Your task to perform on an android device: toggle sleep mode Image 0: 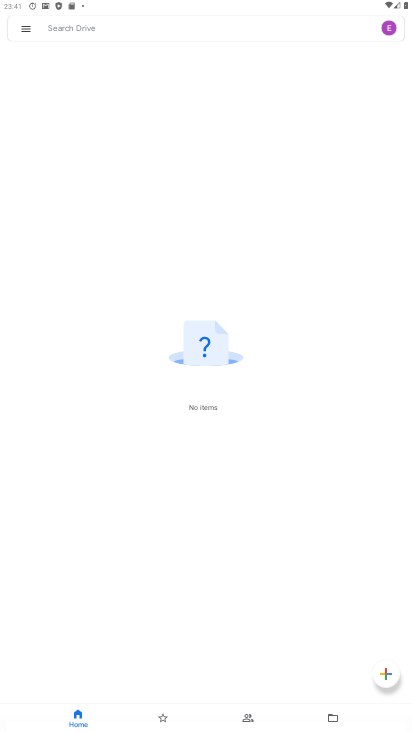
Step 0: press home button
Your task to perform on an android device: toggle sleep mode Image 1: 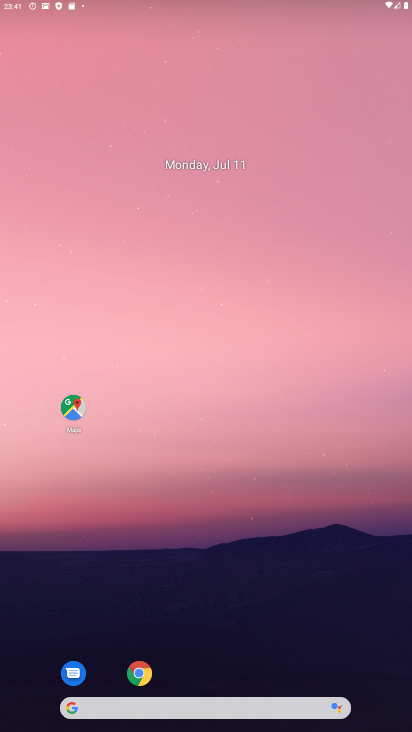
Step 1: drag from (244, 531) to (288, 0)
Your task to perform on an android device: toggle sleep mode Image 2: 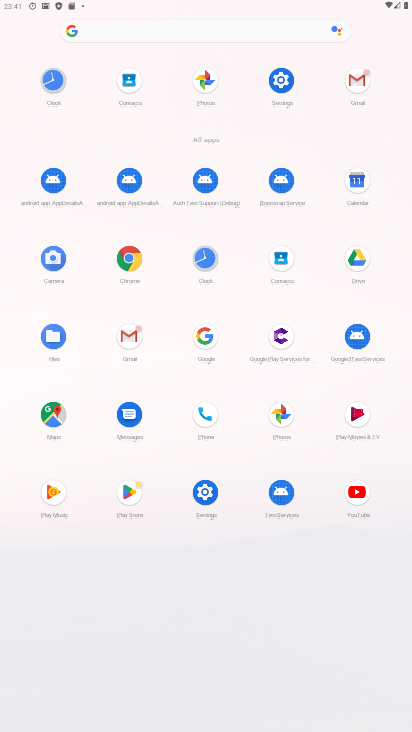
Step 2: click (273, 79)
Your task to perform on an android device: toggle sleep mode Image 3: 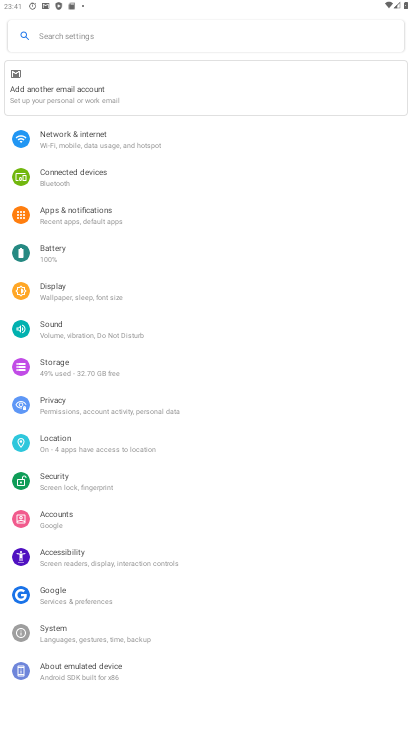
Step 3: click (48, 294)
Your task to perform on an android device: toggle sleep mode Image 4: 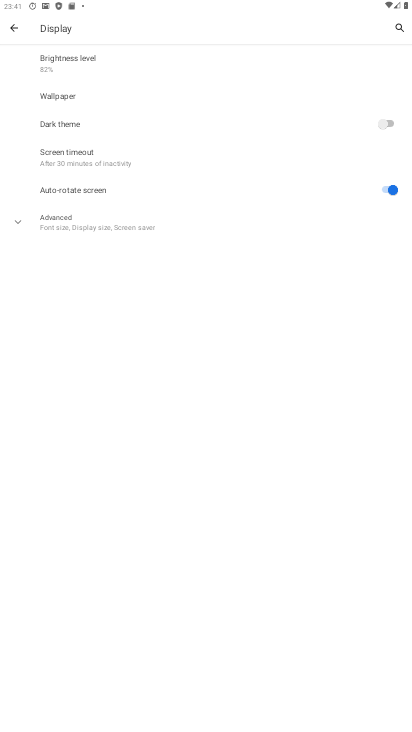
Step 4: click (11, 224)
Your task to perform on an android device: toggle sleep mode Image 5: 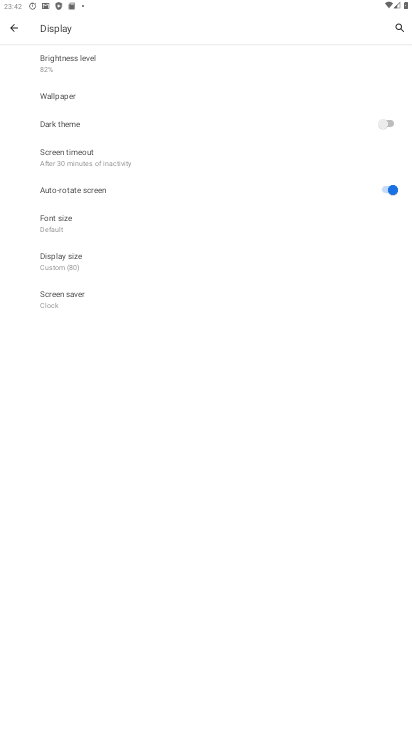
Step 5: task complete